Your task to perform on an android device: toggle improve location accuracy Image 0: 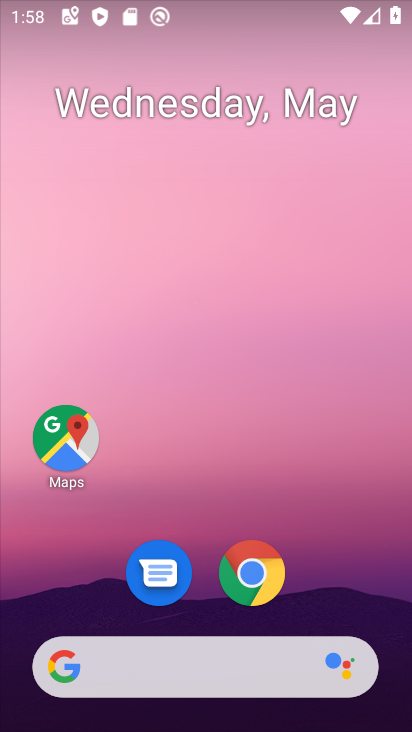
Step 0: drag from (325, 556) to (339, 141)
Your task to perform on an android device: toggle improve location accuracy Image 1: 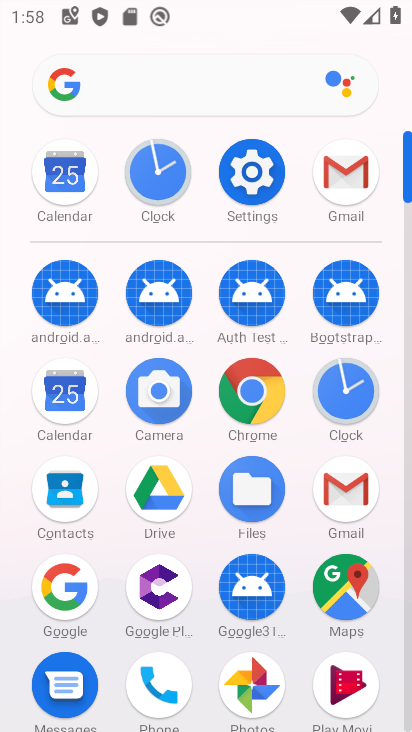
Step 1: click (238, 180)
Your task to perform on an android device: toggle improve location accuracy Image 2: 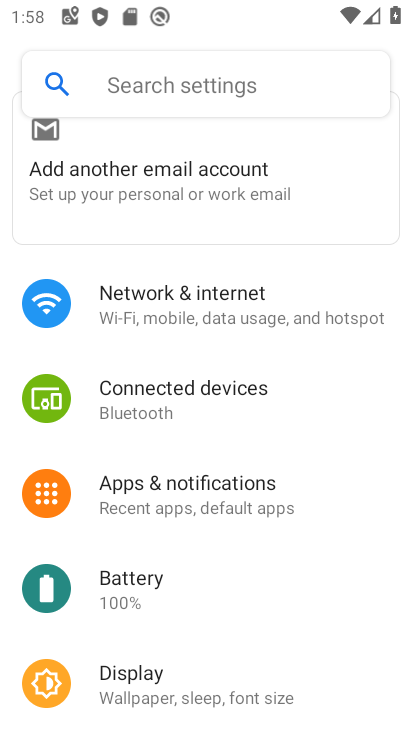
Step 2: drag from (177, 551) to (188, 180)
Your task to perform on an android device: toggle improve location accuracy Image 3: 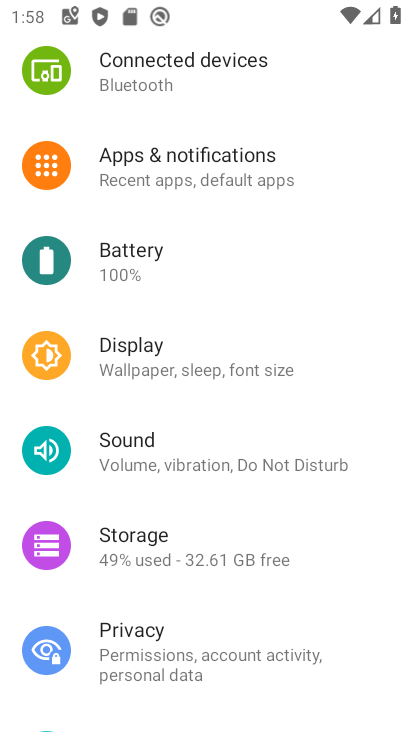
Step 3: drag from (150, 647) to (151, 295)
Your task to perform on an android device: toggle improve location accuracy Image 4: 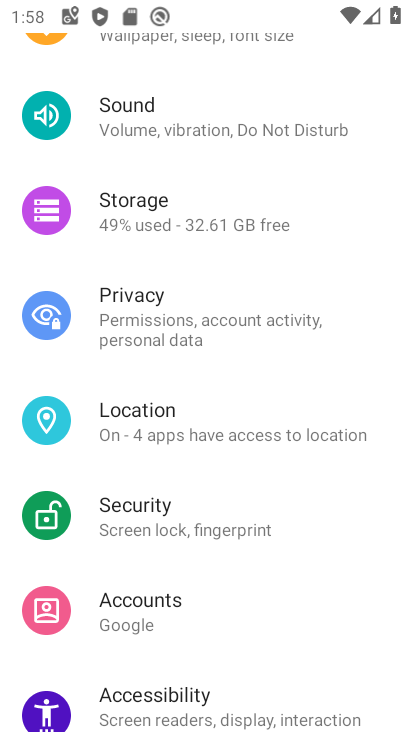
Step 4: click (186, 394)
Your task to perform on an android device: toggle improve location accuracy Image 5: 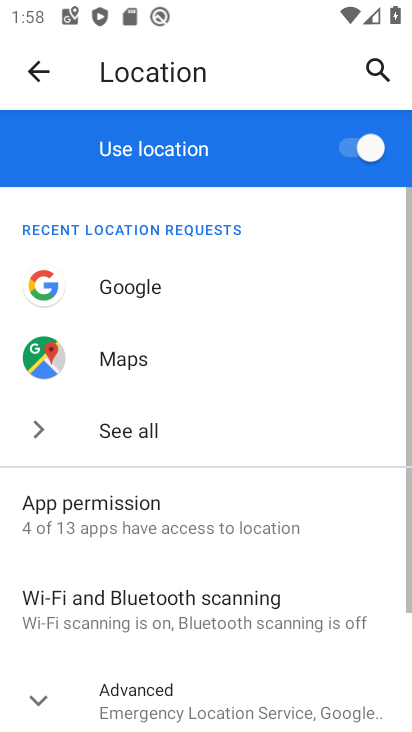
Step 5: click (146, 697)
Your task to perform on an android device: toggle improve location accuracy Image 6: 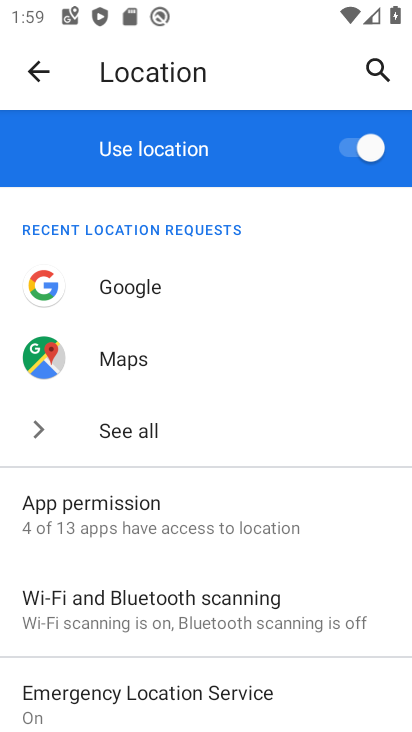
Step 6: drag from (140, 699) to (165, 249)
Your task to perform on an android device: toggle improve location accuracy Image 7: 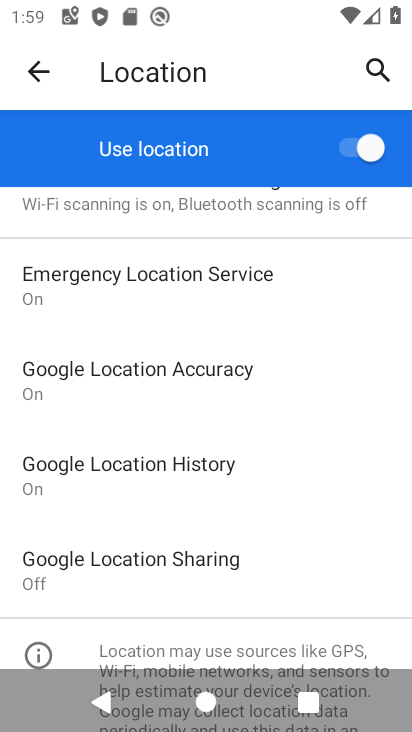
Step 7: click (183, 363)
Your task to perform on an android device: toggle improve location accuracy Image 8: 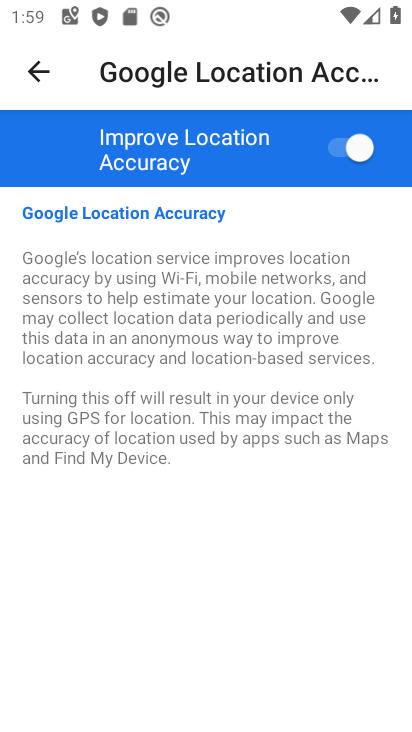
Step 8: click (321, 141)
Your task to perform on an android device: toggle improve location accuracy Image 9: 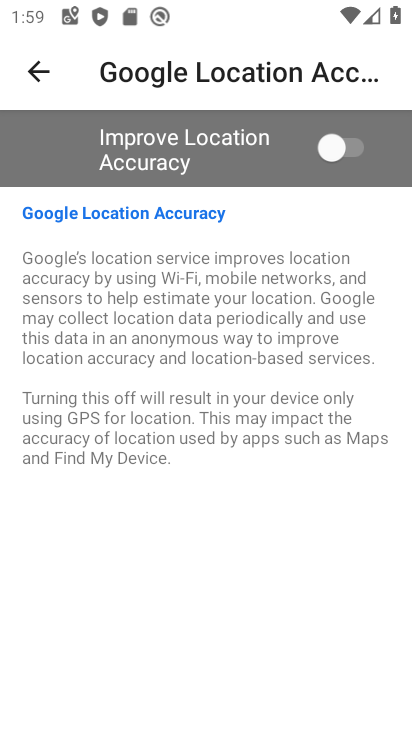
Step 9: task complete